Your task to perform on an android device: set the timer Image 0: 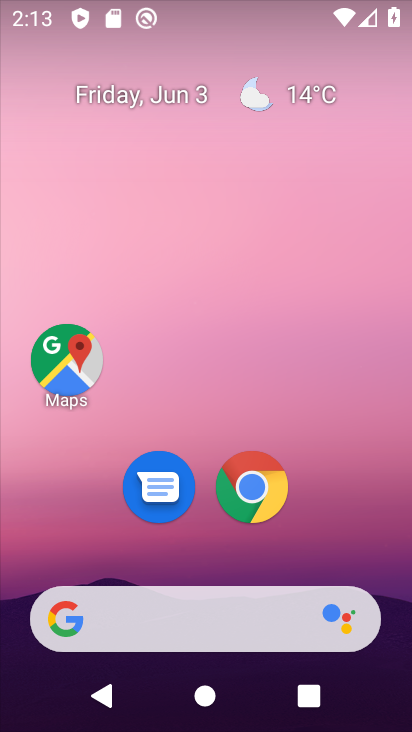
Step 0: drag from (280, 405) to (137, 44)
Your task to perform on an android device: set the timer Image 1: 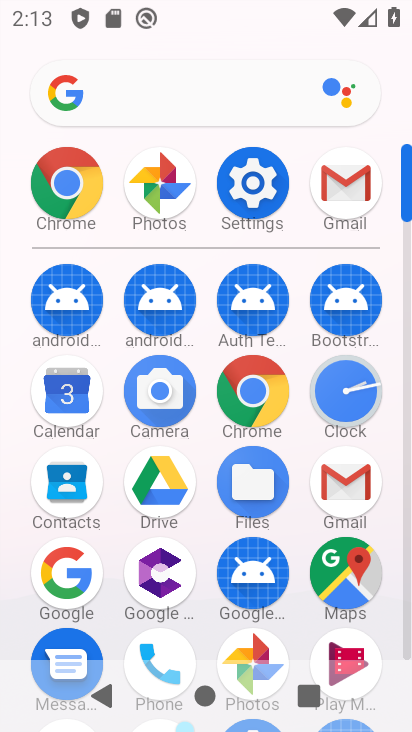
Step 1: click (355, 384)
Your task to perform on an android device: set the timer Image 2: 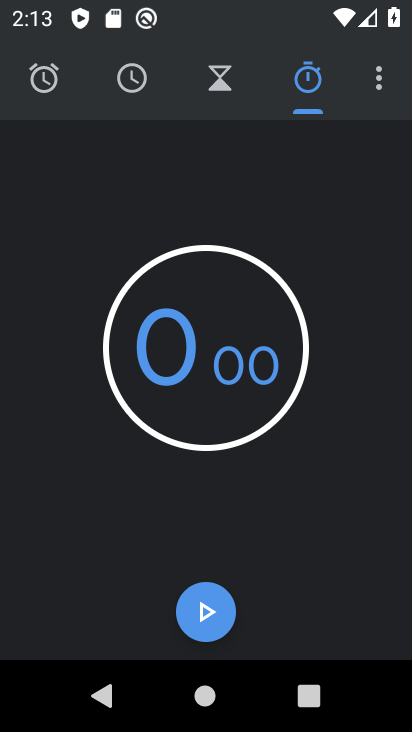
Step 2: click (230, 84)
Your task to perform on an android device: set the timer Image 3: 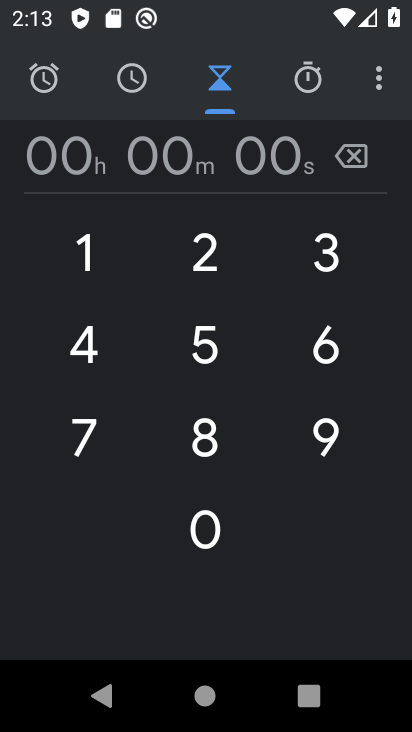
Step 3: click (85, 246)
Your task to perform on an android device: set the timer Image 4: 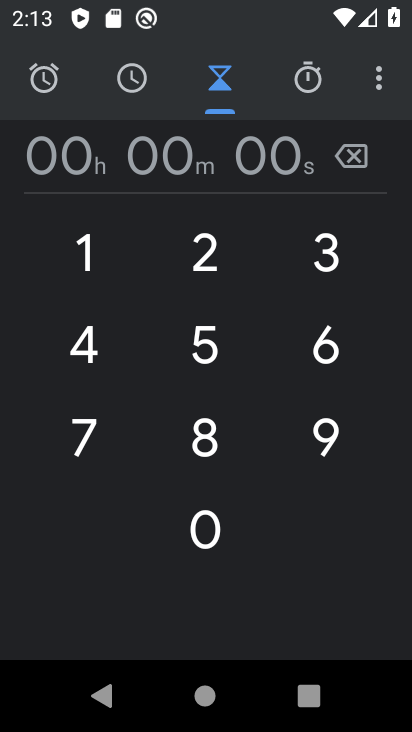
Step 4: click (90, 242)
Your task to perform on an android device: set the timer Image 5: 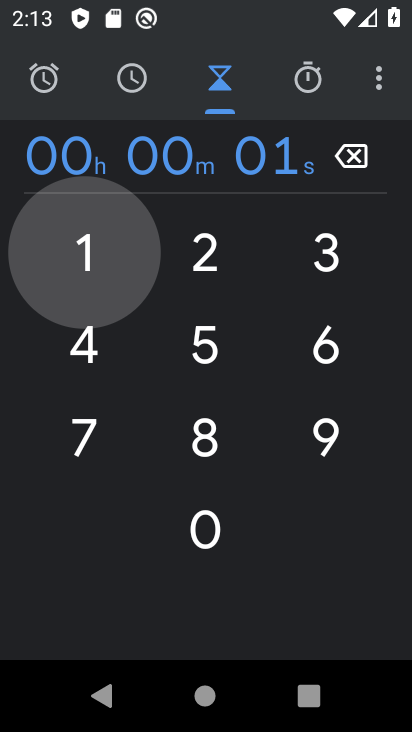
Step 5: click (90, 242)
Your task to perform on an android device: set the timer Image 6: 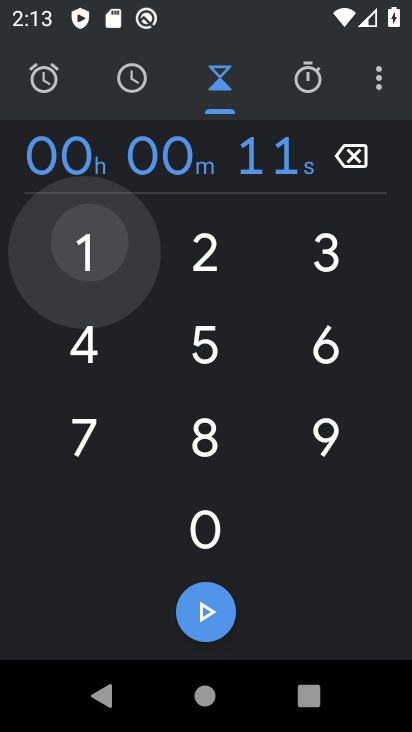
Step 6: click (90, 242)
Your task to perform on an android device: set the timer Image 7: 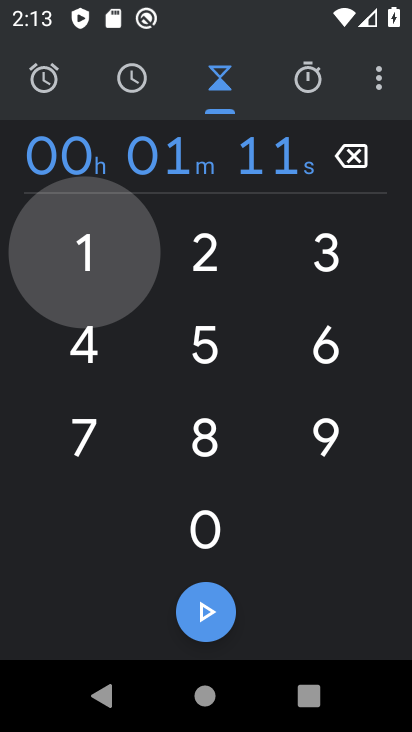
Step 7: click (90, 242)
Your task to perform on an android device: set the timer Image 8: 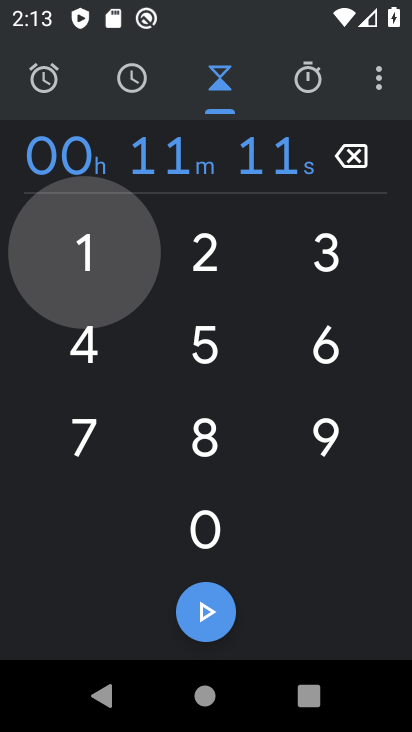
Step 8: click (87, 241)
Your task to perform on an android device: set the timer Image 9: 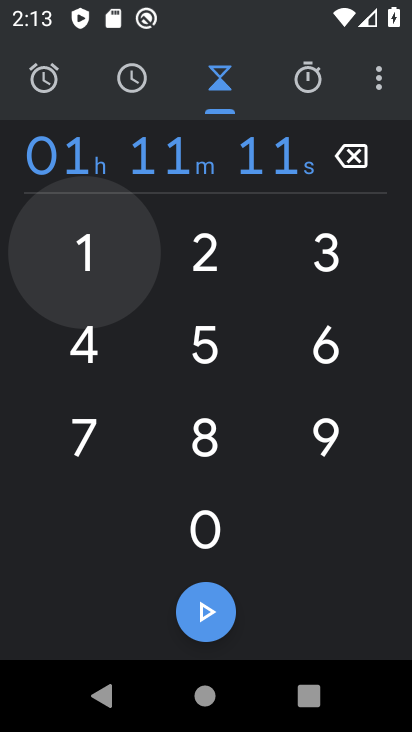
Step 9: click (86, 240)
Your task to perform on an android device: set the timer Image 10: 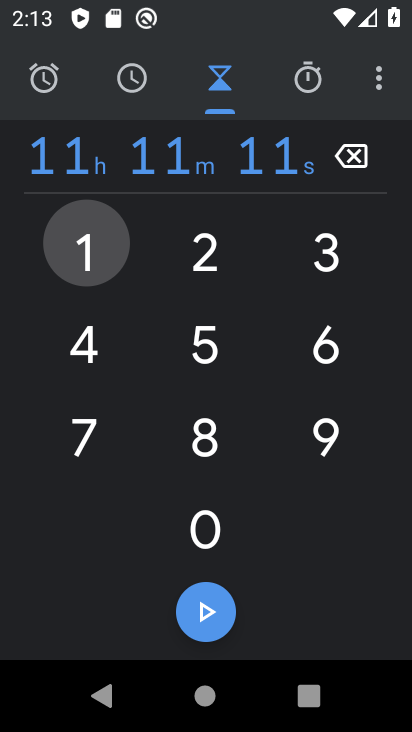
Step 10: click (84, 238)
Your task to perform on an android device: set the timer Image 11: 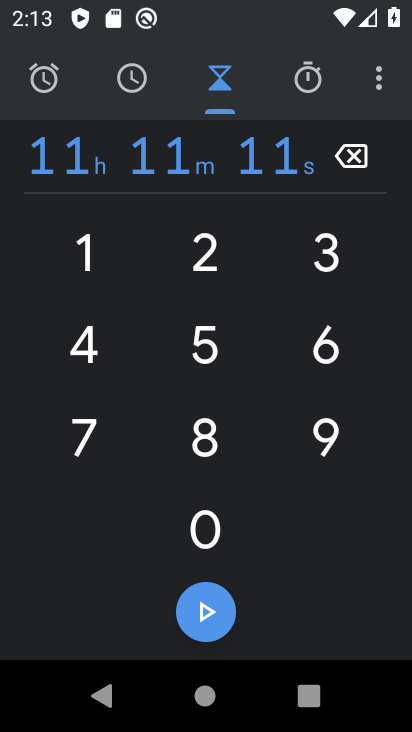
Step 11: click (214, 616)
Your task to perform on an android device: set the timer Image 12: 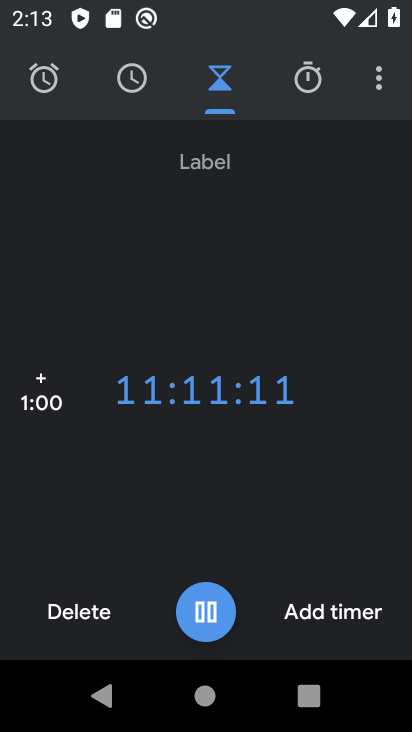
Step 12: task complete